Your task to perform on an android device: Open calendar and show me the first week of next month Image 0: 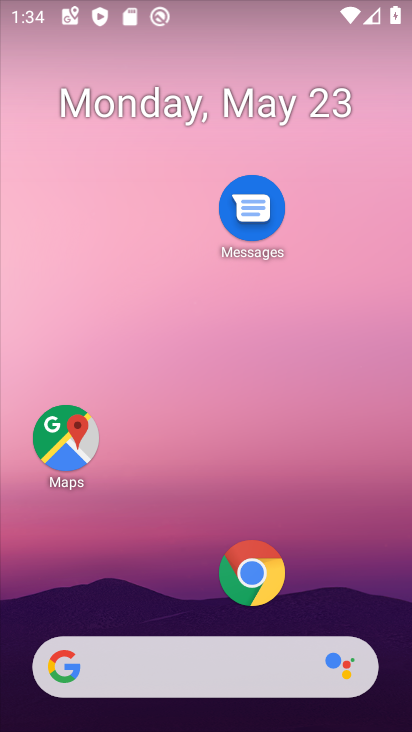
Step 0: drag from (190, 493) to (207, 110)
Your task to perform on an android device: Open calendar and show me the first week of next month Image 1: 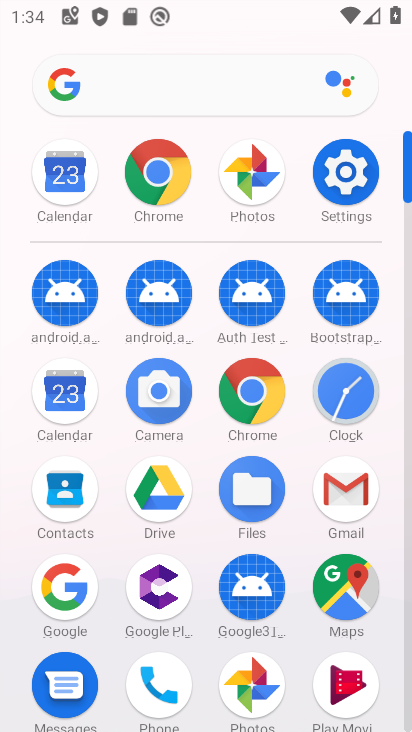
Step 1: click (59, 386)
Your task to perform on an android device: Open calendar and show me the first week of next month Image 2: 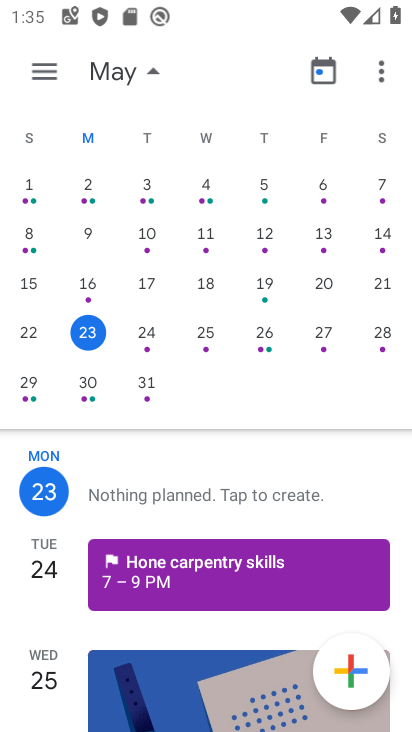
Step 2: drag from (387, 282) to (47, 232)
Your task to perform on an android device: Open calendar and show me the first week of next month Image 3: 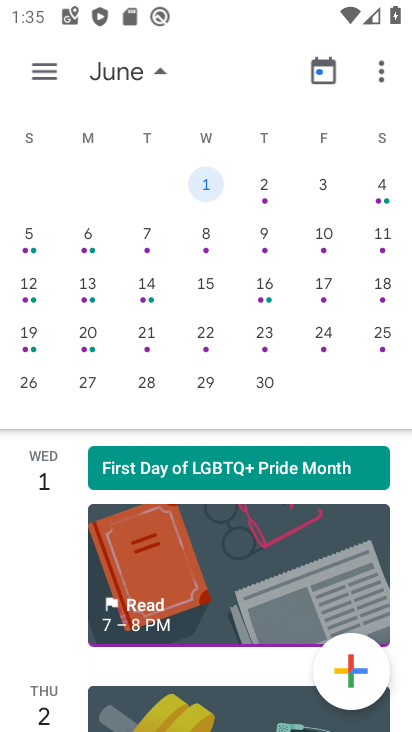
Step 3: click (148, 237)
Your task to perform on an android device: Open calendar and show me the first week of next month Image 4: 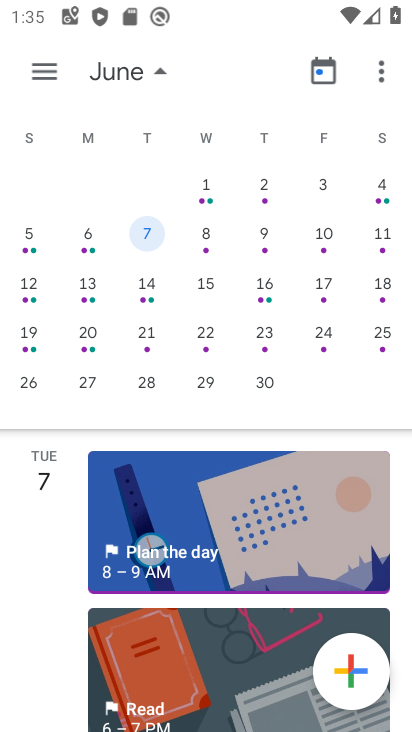
Step 4: click (204, 192)
Your task to perform on an android device: Open calendar and show me the first week of next month Image 5: 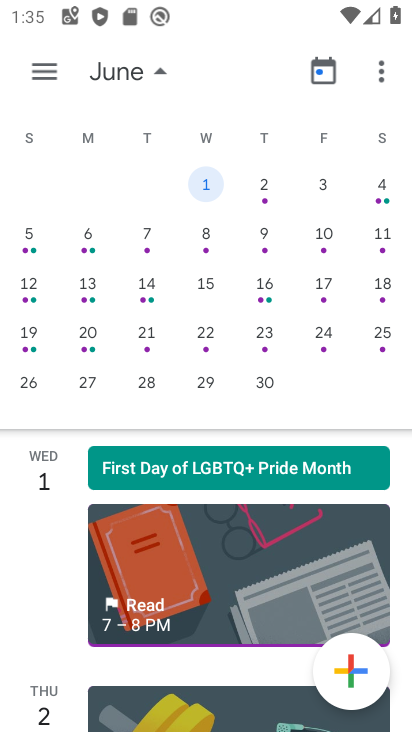
Step 5: click (261, 190)
Your task to perform on an android device: Open calendar and show me the first week of next month Image 6: 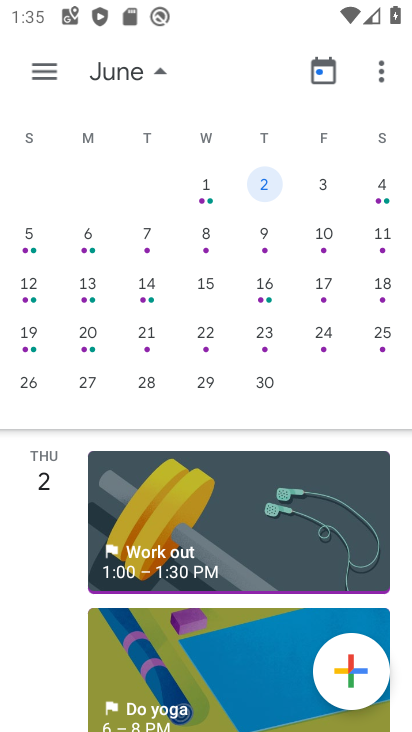
Step 6: click (385, 62)
Your task to perform on an android device: Open calendar and show me the first week of next month Image 7: 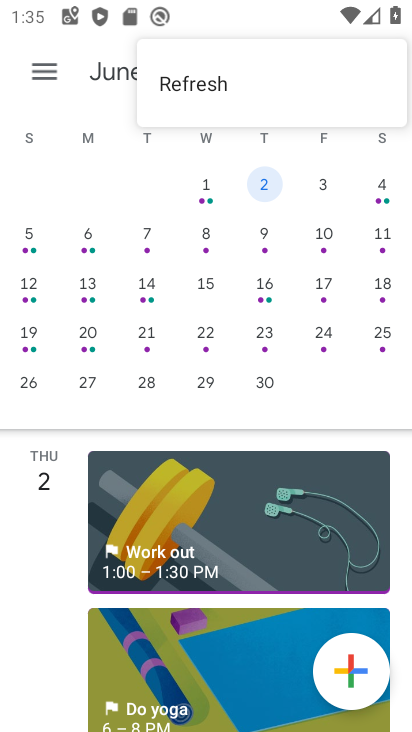
Step 7: click (41, 75)
Your task to perform on an android device: Open calendar and show me the first week of next month Image 8: 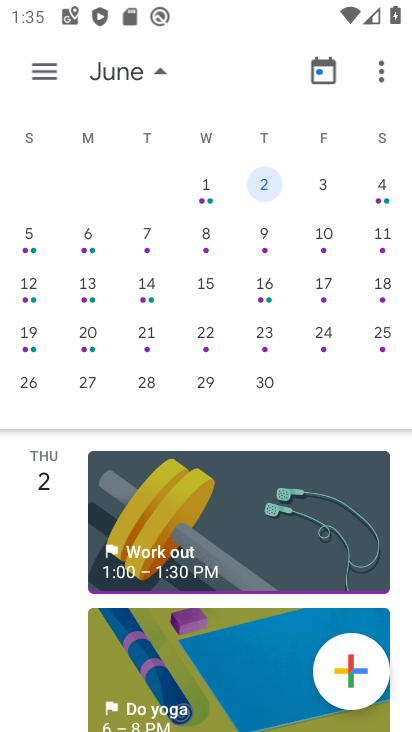
Step 8: click (56, 77)
Your task to perform on an android device: Open calendar and show me the first week of next month Image 9: 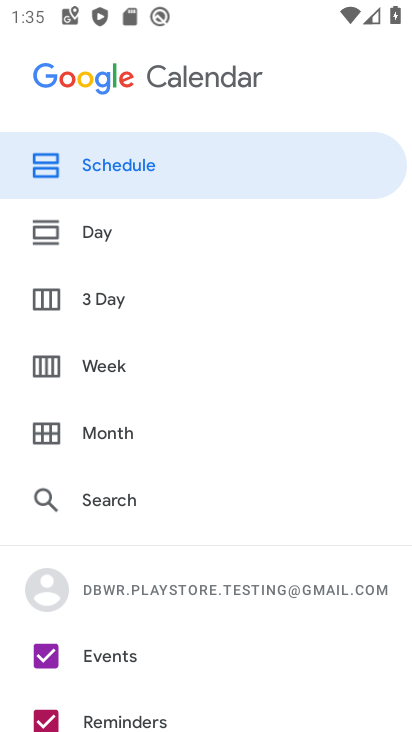
Step 9: click (129, 370)
Your task to perform on an android device: Open calendar and show me the first week of next month Image 10: 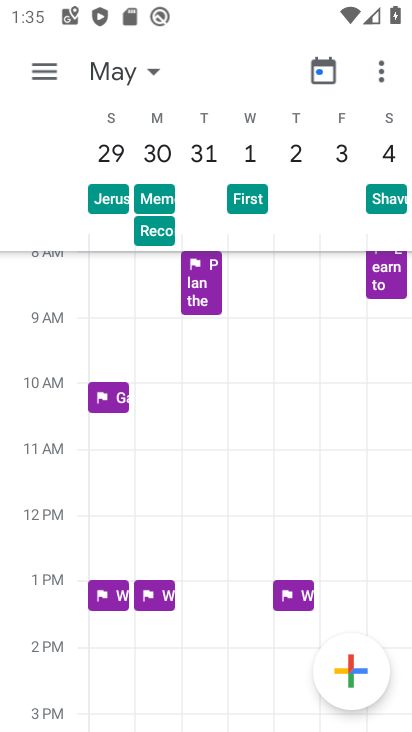
Step 10: task complete